Your task to perform on an android device: manage bookmarks in the chrome app Image 0: 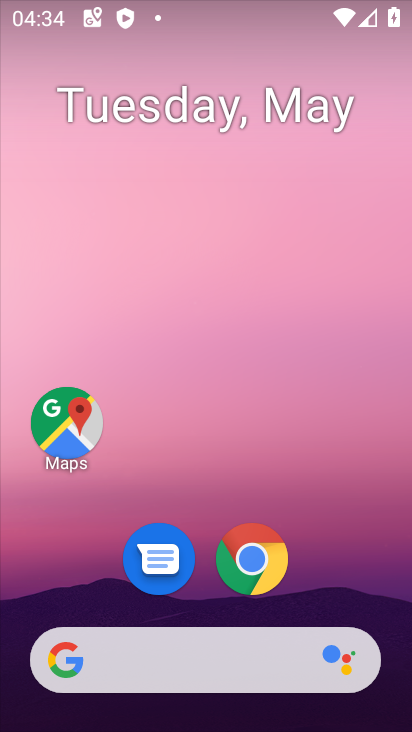
Step 0: click (264, 564)
Your task to perform on an android device: manage bookmarks in the chrome app Image 1: 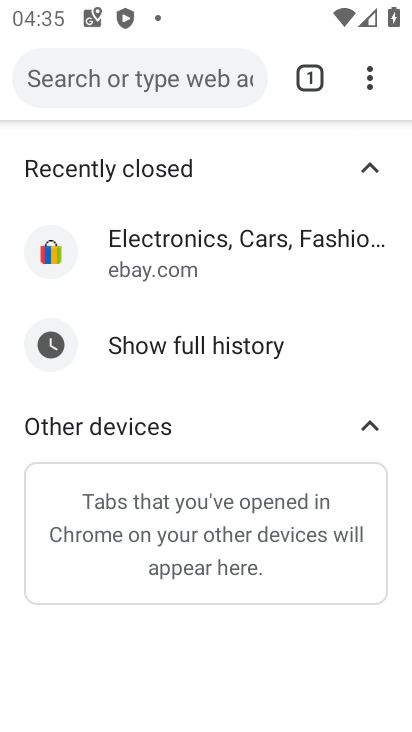
Step 1: click (380, 90)
Your task to perform on an android device: manage bookmarks in the chrome app Image 2: 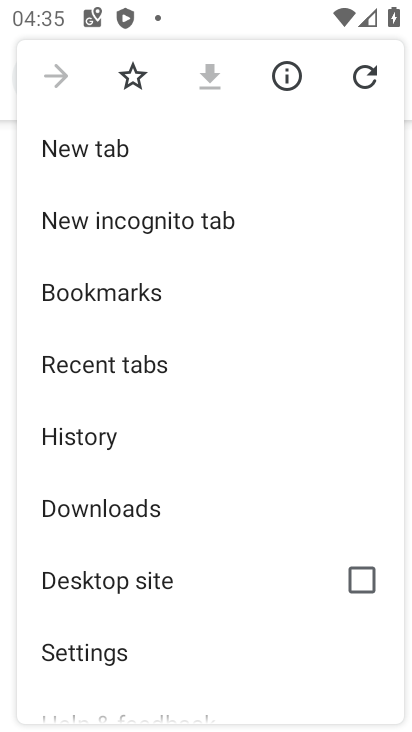
Step 2: click (113, 282)
Your task to perform on an android device: manage bookmarks in the chrome app Image 3: 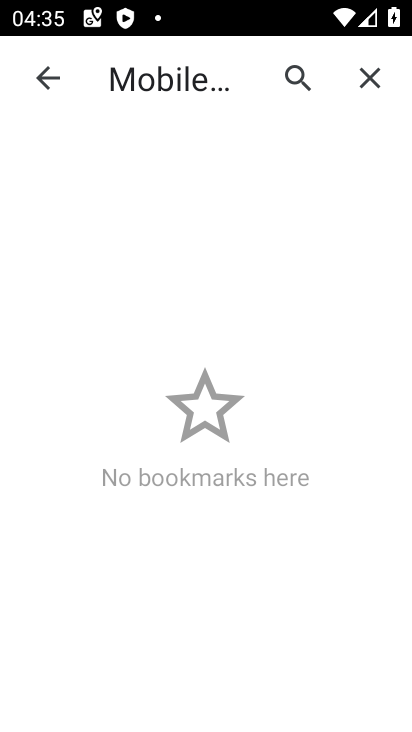
Step 3: task complete